Your task to perform on an android device: Go to Google maps Image 0: 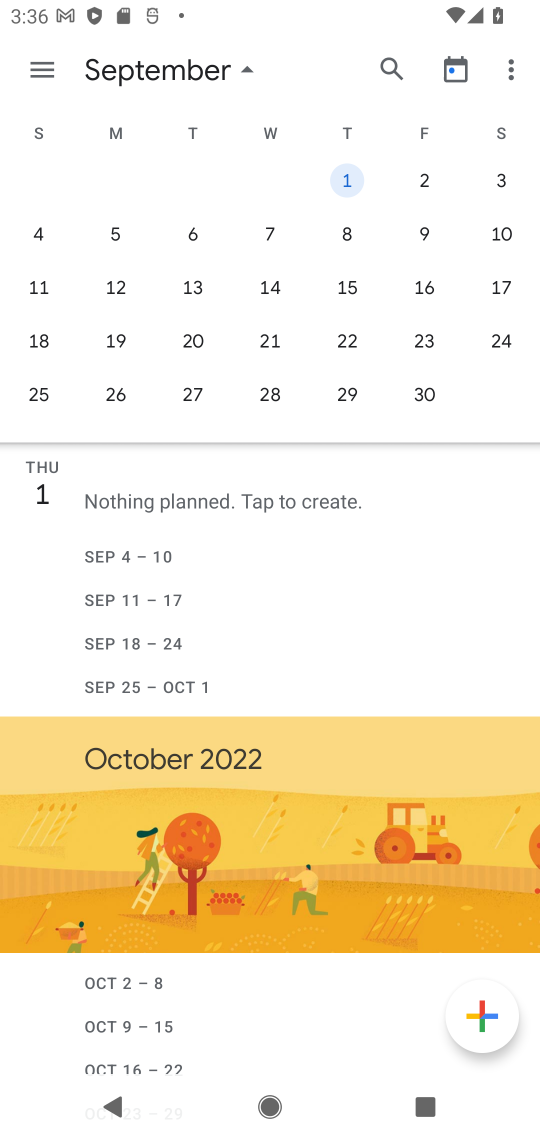
Step 0: press home button
Your task to perform on an android device: Go to Google maps Image 1: 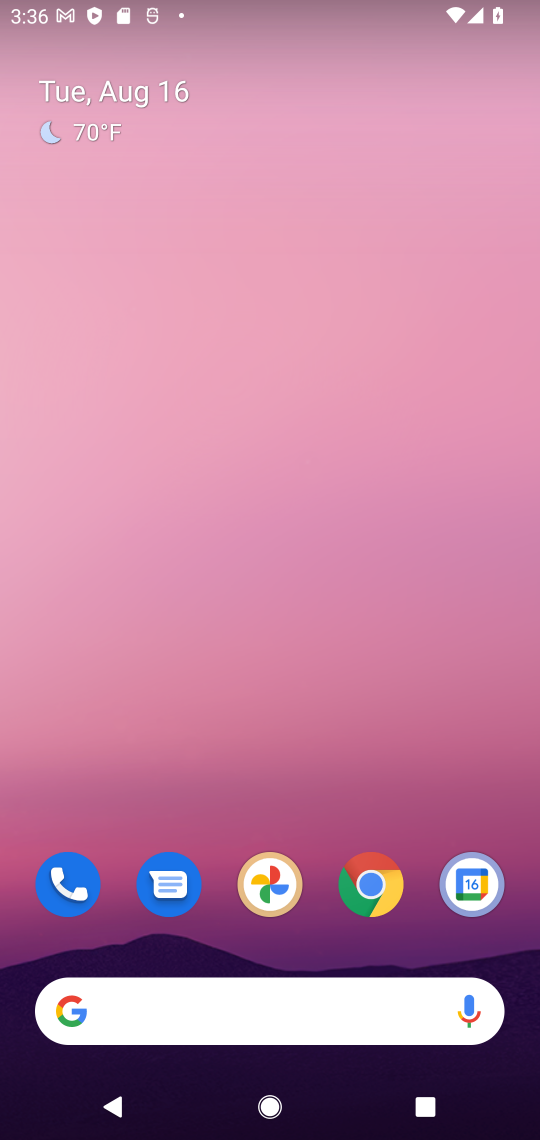
Step 1: drag from (278, 779) to (287, 109)
Your task to perform on an android device: Go to Google maps Image 2: 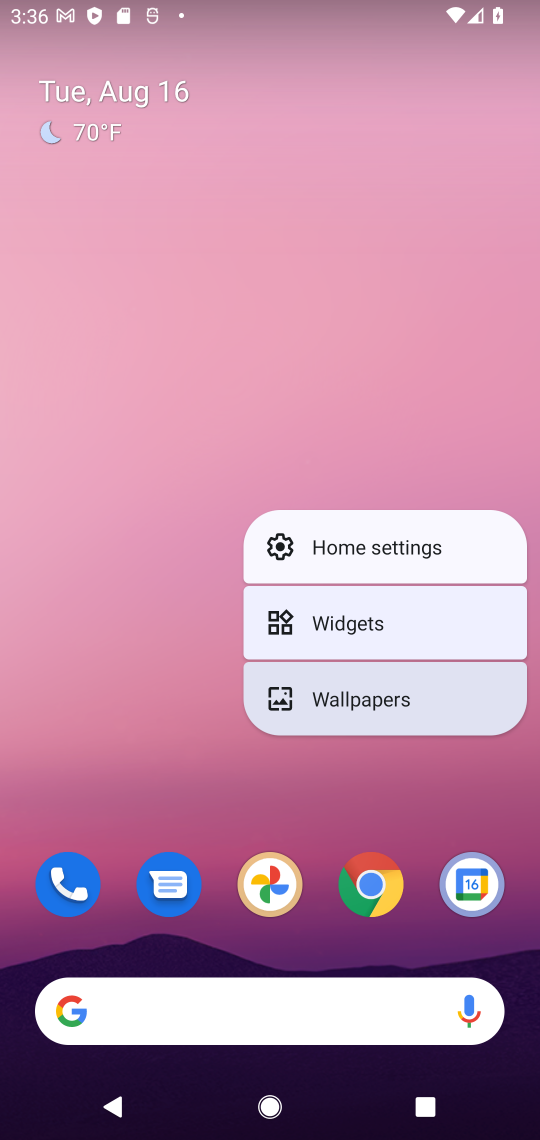
Step 2: click (197, 771)
Your task to perform on an android device: Go to Google maps Image 3: 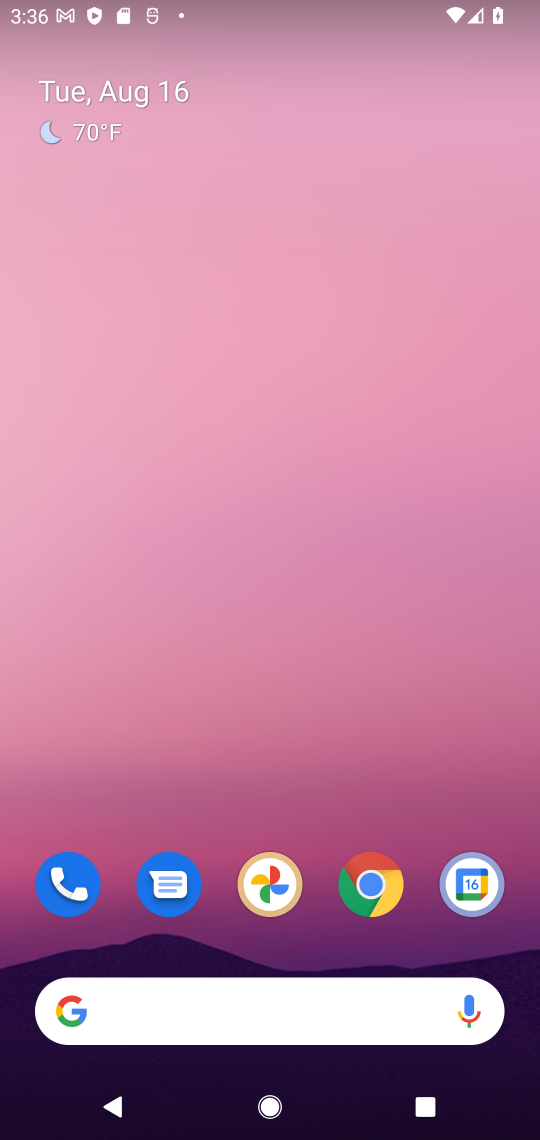
Step 3: drag from (265, 776) to (269, 169)
Your task to perform on an android device: Go to Google maps Image 4: 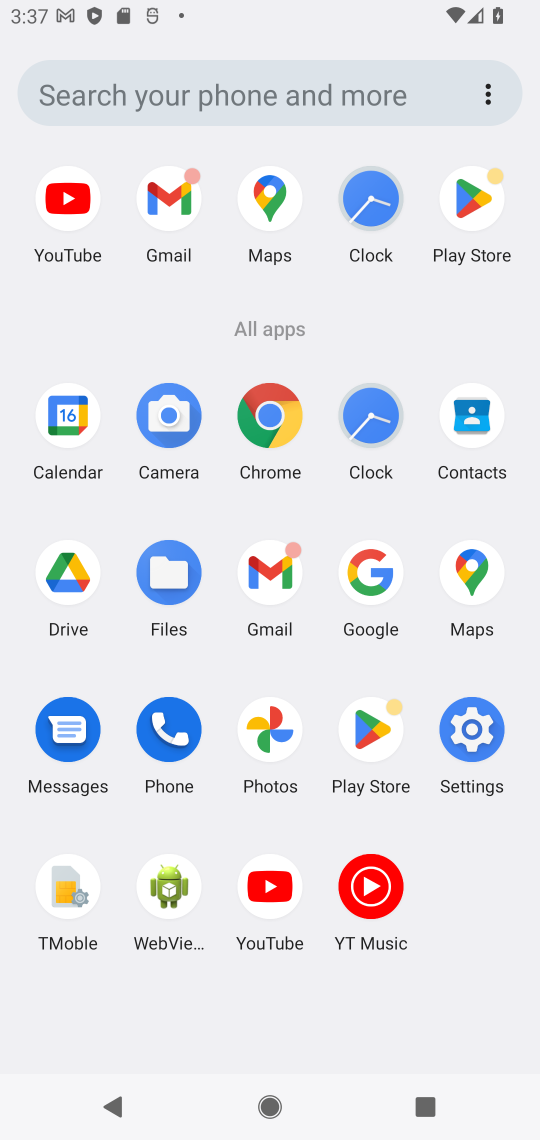
Step 4: click (466, 567)
Your task to perform on an android device: Go to Google maps Image 5: 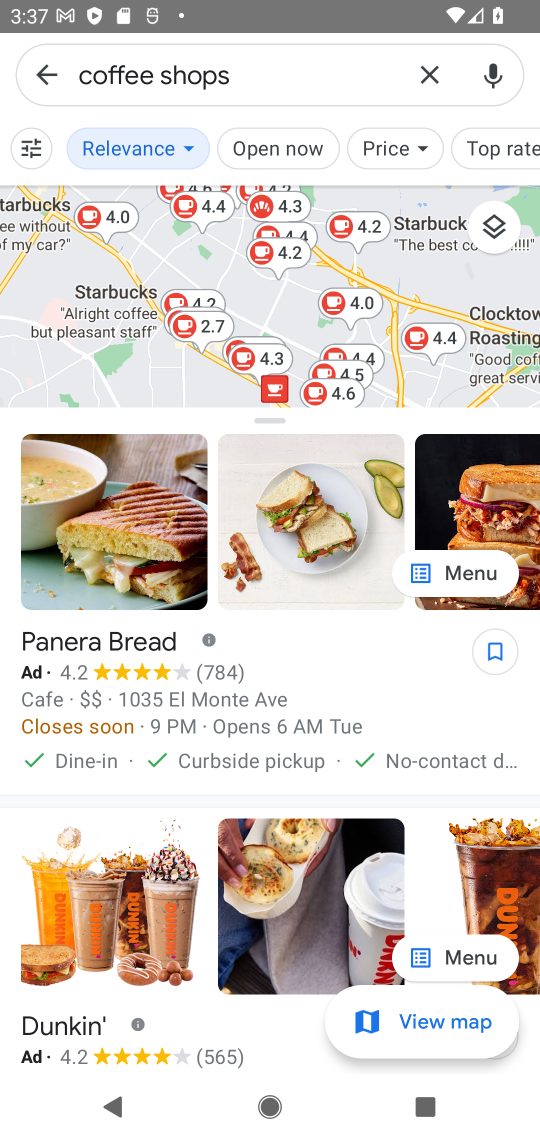
Step 5: task complete